Your task to perform on an android device: all mails in gmail Image 0: 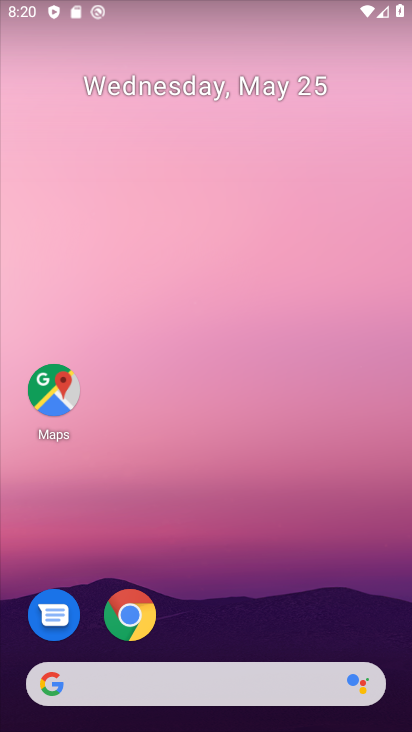
Step 0: drag from (303, 718) to (282, 9)
Your task to perform on an android device: all mails in gmail Image 1: 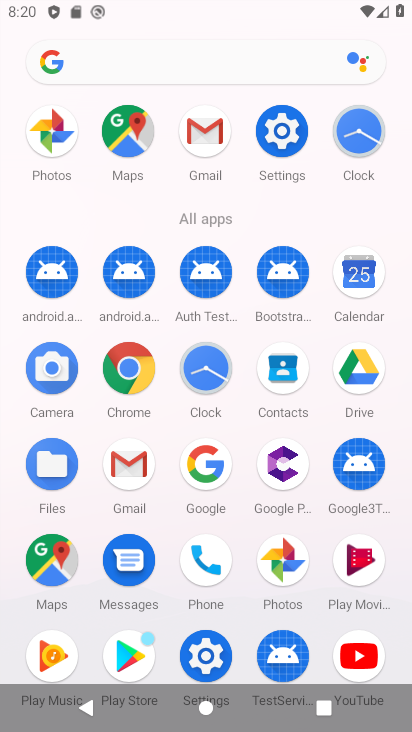
Step 1: click (212, 122)
Your task to perform on an android device: all mails in gmail Image 2: 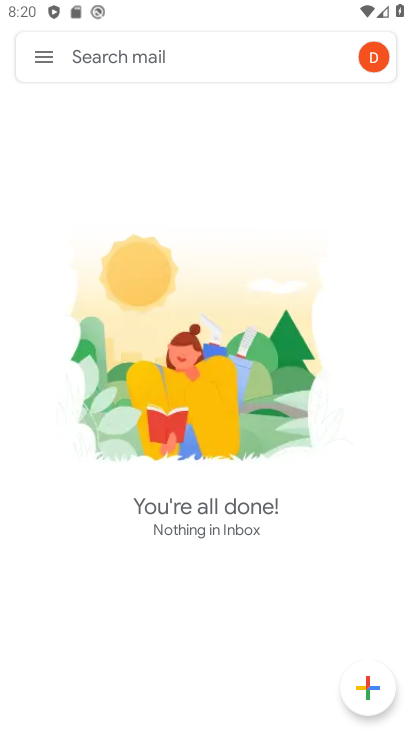
Step 2: click (40, 57)
Your task to perform on an android device: all mails in gmail Image 3: 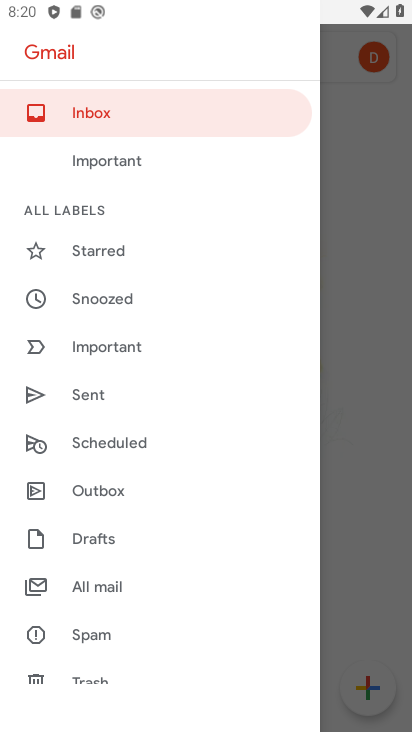
Step 3: click (127, 586)
Your task to perform on an android device: all mails in gmail Image 4: 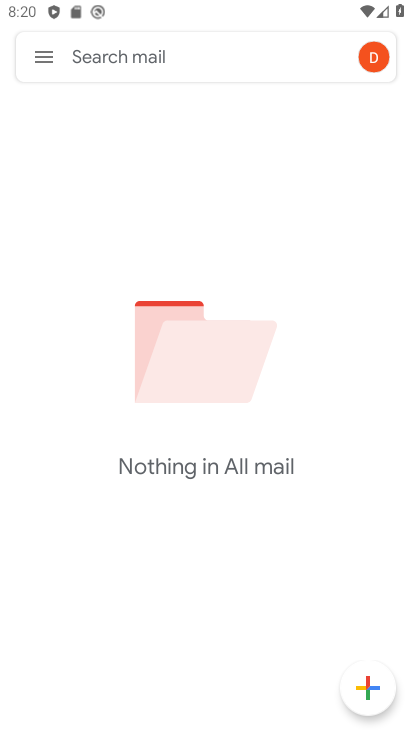
Step 4: task complete